Your task to perform on an android device: show emergency info Image 0: 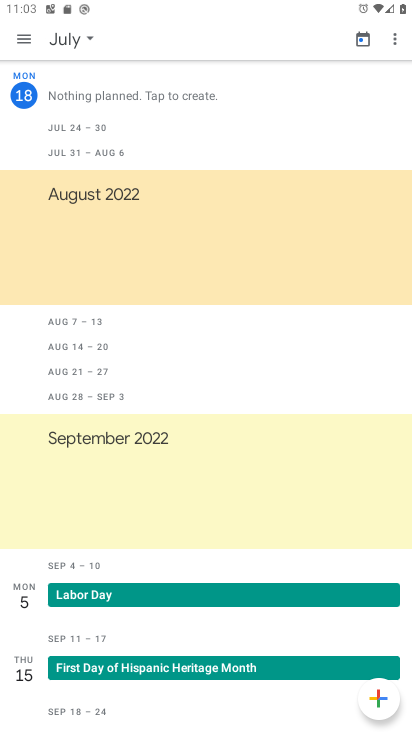
Step 0: press home button
Your task to perform on an android device: show emergency info Image 1: 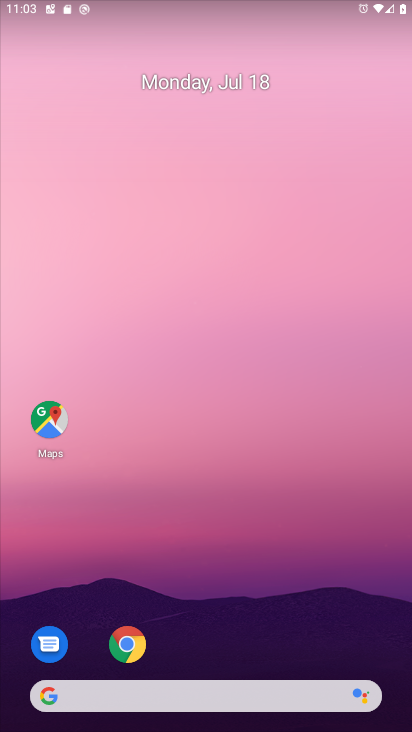
Step 1: drag from (226, 658) to (198, 67)
Your task to perform on an android device: show emergency info Image 2: 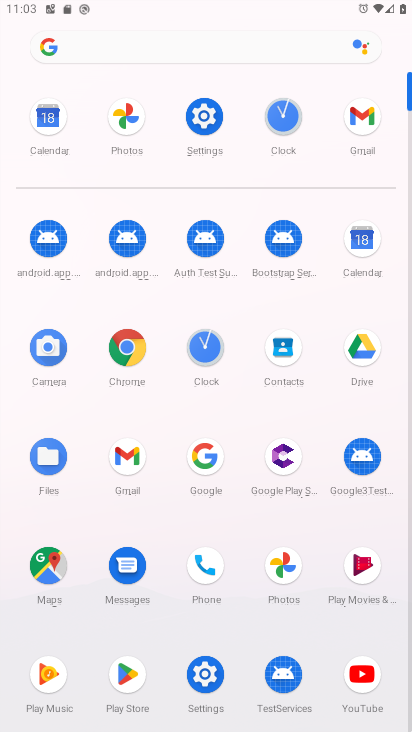
Step 2: click (201, 116)
Your task to perform on an android device: show emergency info Image 3: 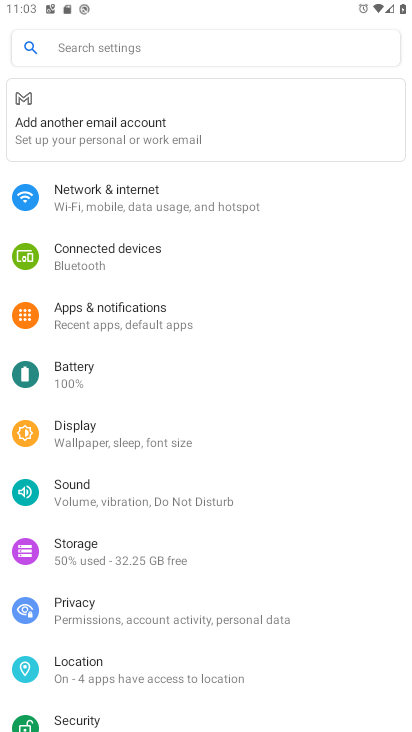
Step 3: drag from (159, 690) to (164, 318)
Your task to perform on an android device: show emergency info Image 4: 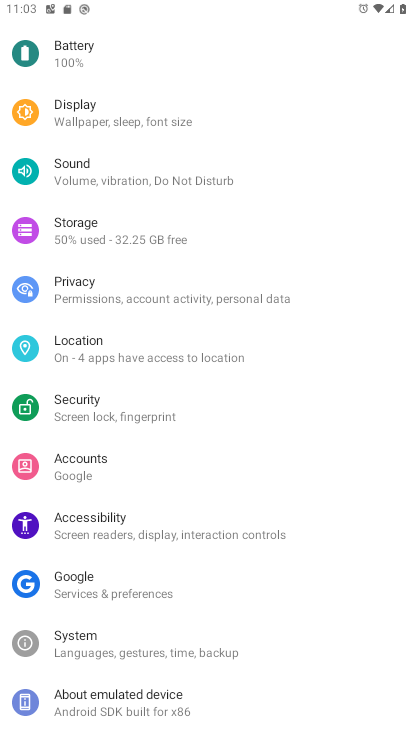
Step 4: click (94, 688)
Your task to perform on an android device: show emergency info Image 5: 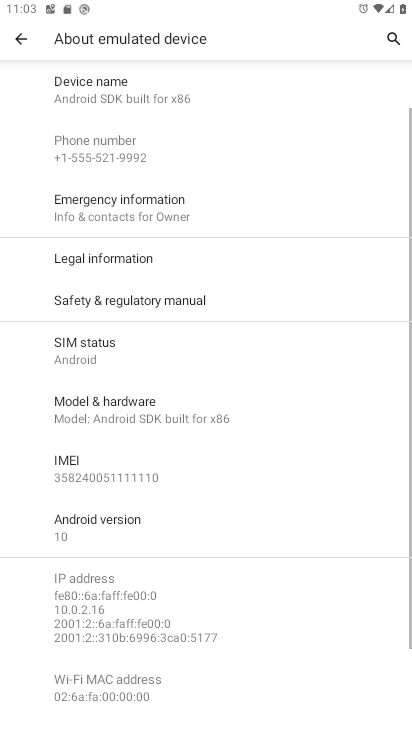
Step 5: task complete